Your task to perform on an android device: Go to internet settings Image 0: 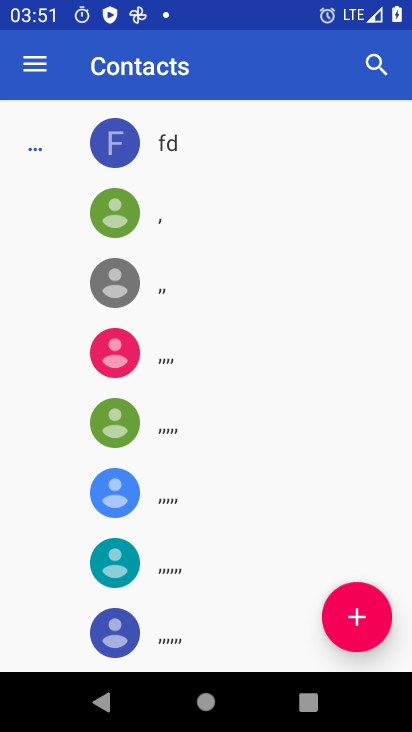
Step 0: press home button
Your task to perform on an android device: Go to internet settings Image 1: 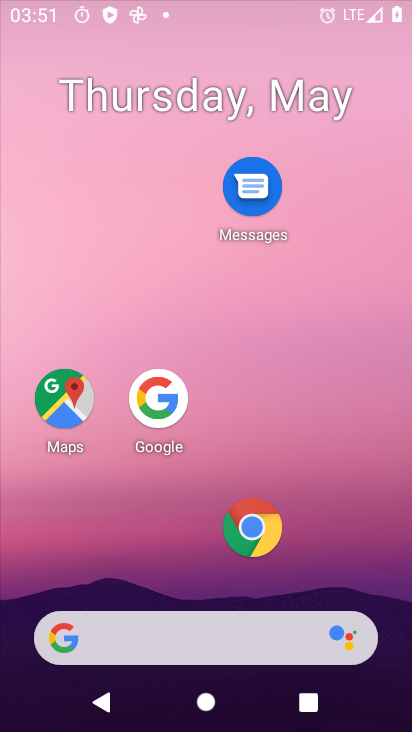
Step 1: drag from (194, 604) to (267, 214)
Your task to perform on an android device: Go to internet settings Image 2: 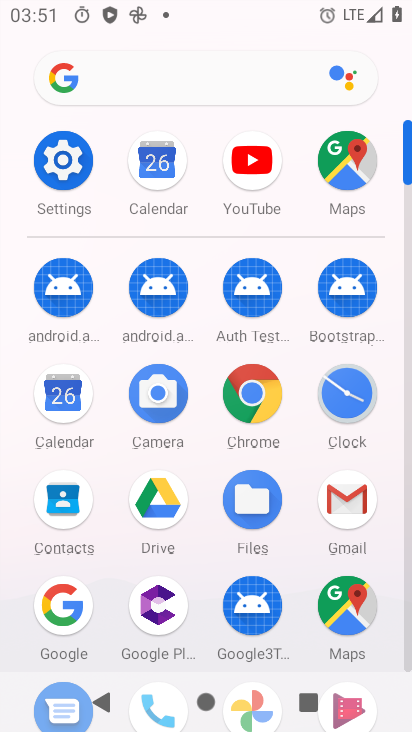
Step 2: click (65, 158)
Your task to perform on an android device: Go to internet settings Image 3: 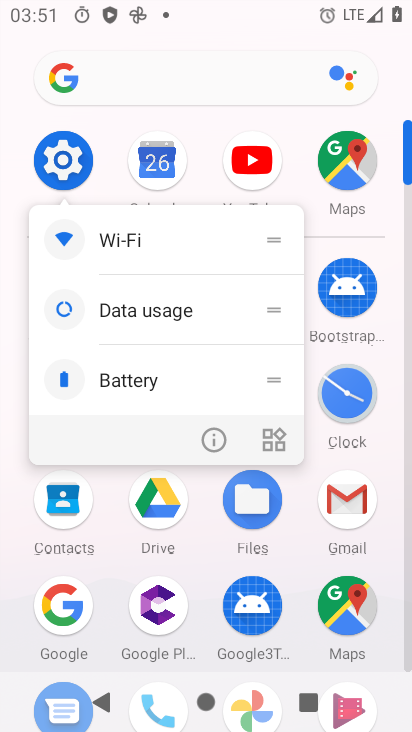
Step 3: click (214, 443)
Your task to perform on an android device: Go to internet settings Image 4: 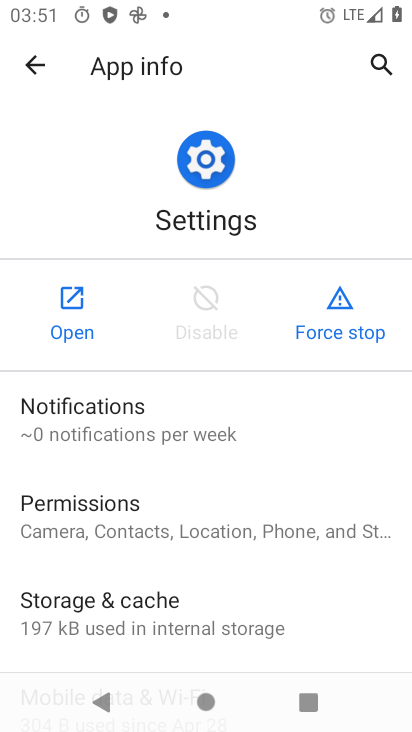
Step 4: click (69, 321)
Your task to perform on an android device: Go to internet settings Image 5: 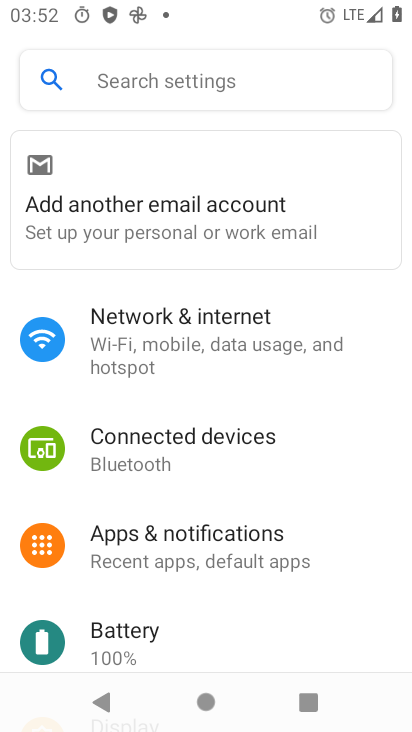
Step 5: click (155, 325)
Your task to perform on an android device: Go to internet settings Image 6: 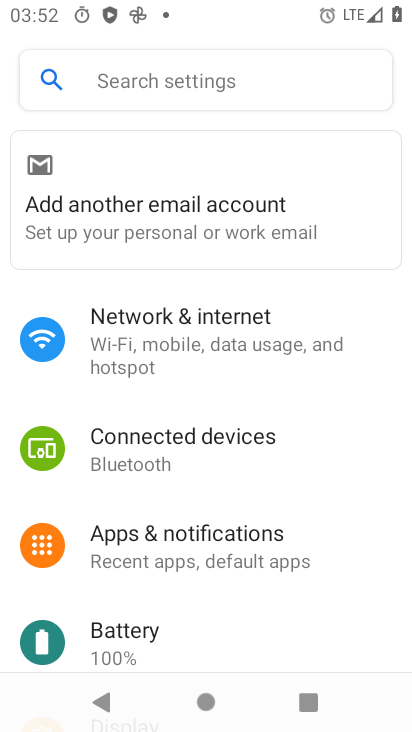
Step 6: click (154, 325)
Your task to perform on an android device: Go to internet settings Image 7: 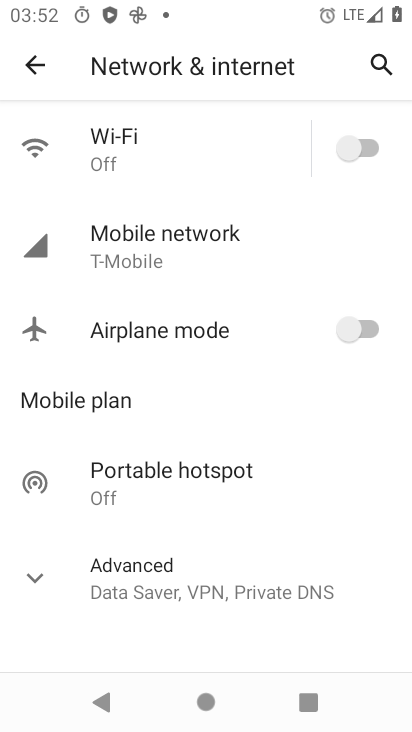
Step 7: task complete